Your task to perform on an android device: clear history in the chrome app Image 0: 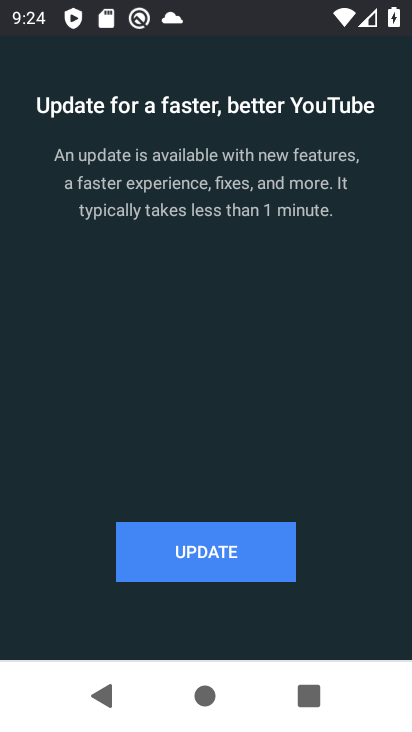
Step 0: press home button
Your task to perform on an android device: clear history in the chrome app Image 1: 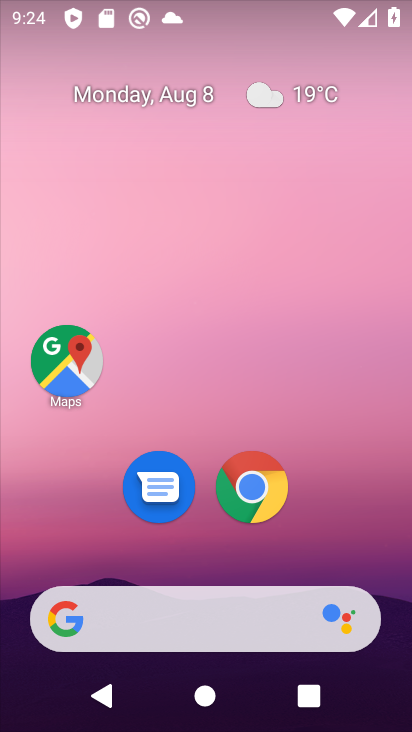
Step 1: click (256, 494)
Your task to perform on an android device: clear history in the chrome app Image 2: 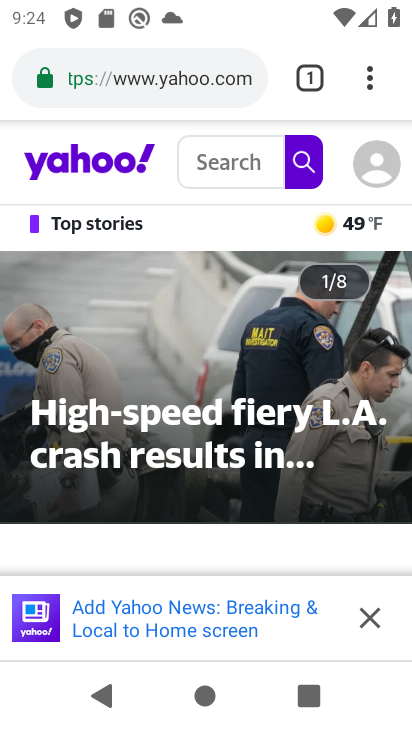
Step 2: click (370, 87)
Your task to perform on an android device: clear history in the chrome app Image 3: 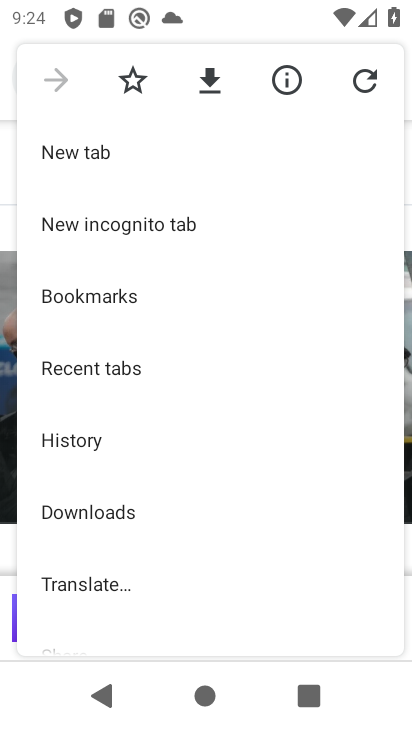
Step 3: click (77, 441)
Your task to perform on an android device: clear history in the chrome app Image 4: 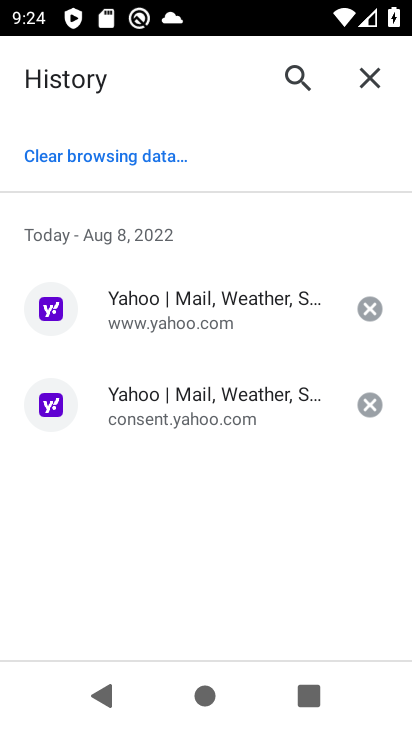
Step 4: click (118, 158)
Your task to perform on an android device: clear history in the chrome app Image 5: 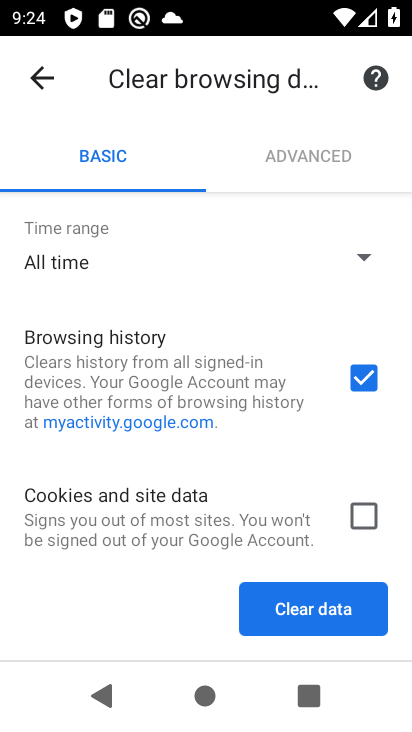
Step 5: drag from (239, 547) to (272, 214)
Your task to perform on an android device: clear history in the chrome app Image 6: 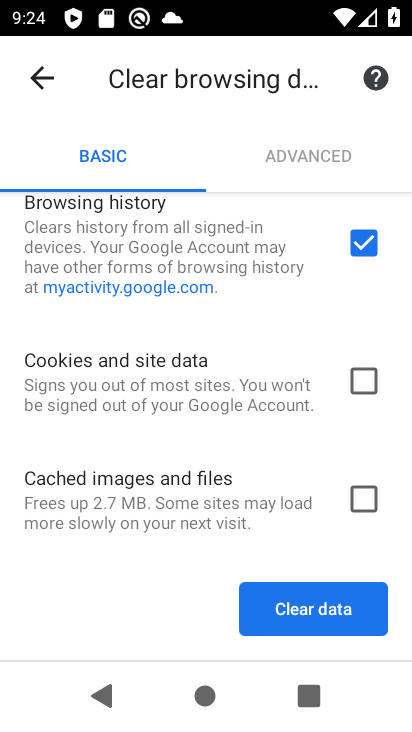
Step 6: click (316, 604)
Your task to perform on an android device: clear history in the chrome app Image 7: 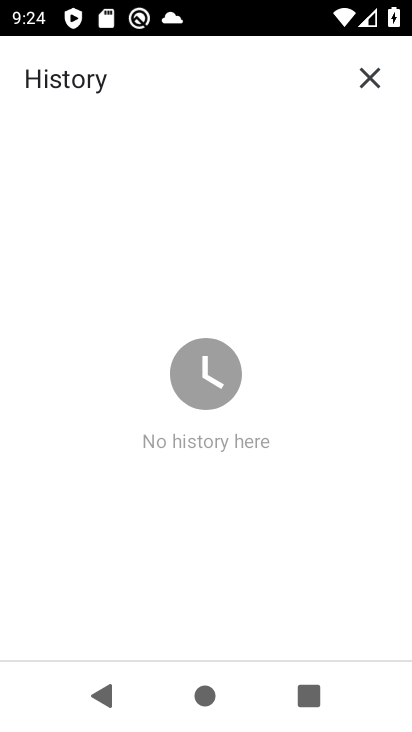
Step 7: task complete